Your task to perform on an android device: allow cookies in the chrome app Image 0: 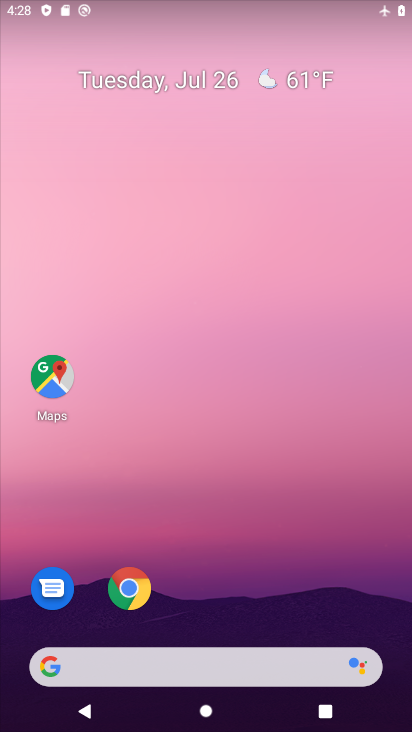
Step 0: drag from (251, 582) to (360, 53)
Your task to perform on an android device: allow cookies in the chrome app Image 1: 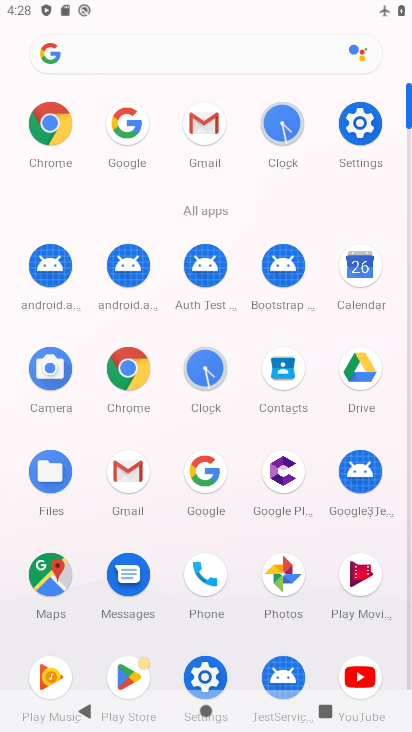
Step 1: click (57, 126)
Your task to perform on an android device: allow cookies in the chrome app Image 2: 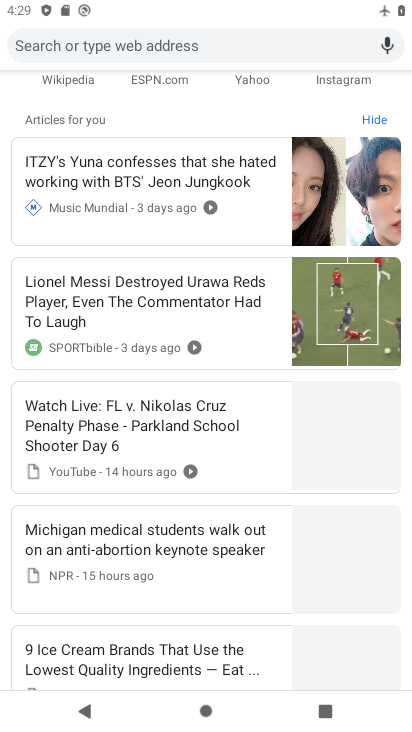
Step 2: drag from (185, 238) to (268, 614)
Your task to perform on an android device: allow cookies in the chrome app Image 3: 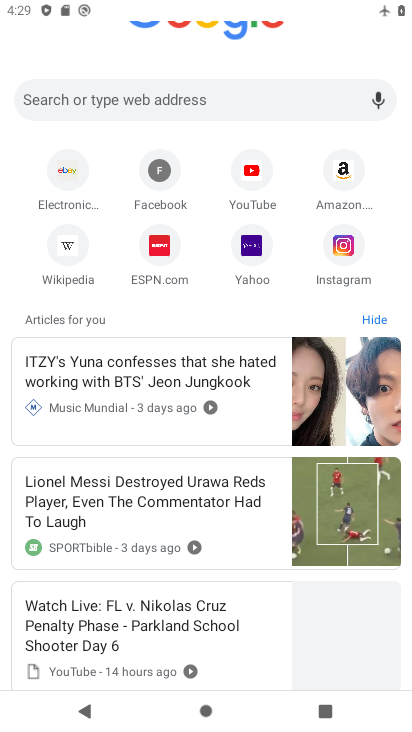
Step 3: drag from (130, 446) to (193, 671)
Your task to perform on an android device: allow cookies in the chrome app Image 4: 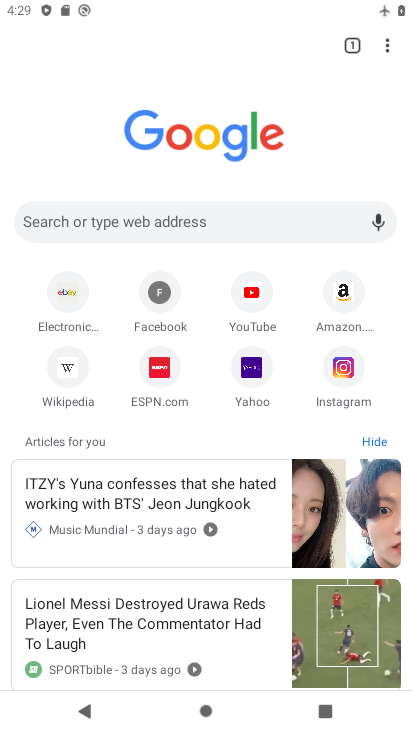
Step 4: drag from (392, 41) to (251, 378)
Your task to perform on an android device: allow cookies in the chrome app Image 5: 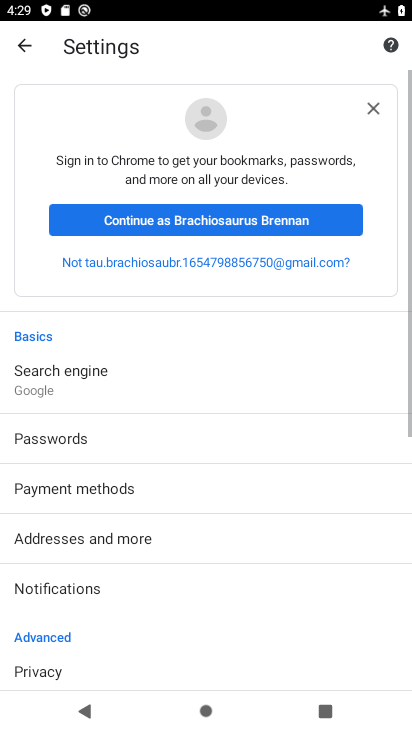
Step 5: drag from (93, 565) to (172, 245)
Your task to perform on an android device: allow cookies in the chrome app Image 6: 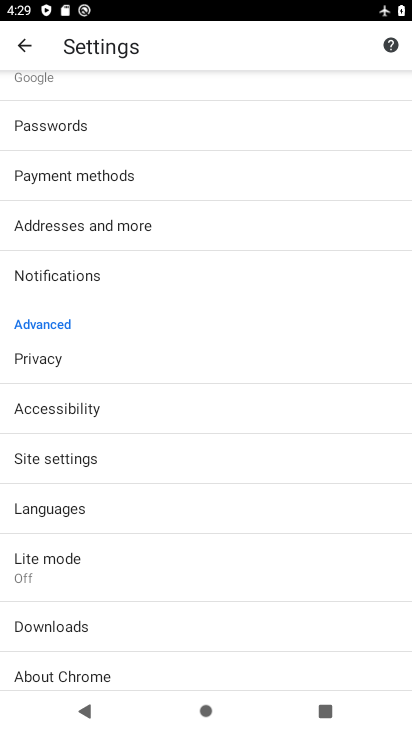
Step 6: click (48, 464)
Your task to perform on an android device: allow cookies in the chrome app Image 7: 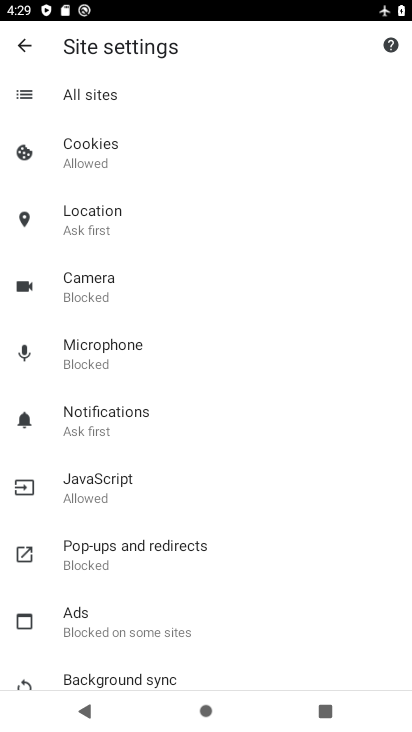
Step 7: click (83, 157)
Your task to perform on an android device: allow cookies in the chrome app Image 8: 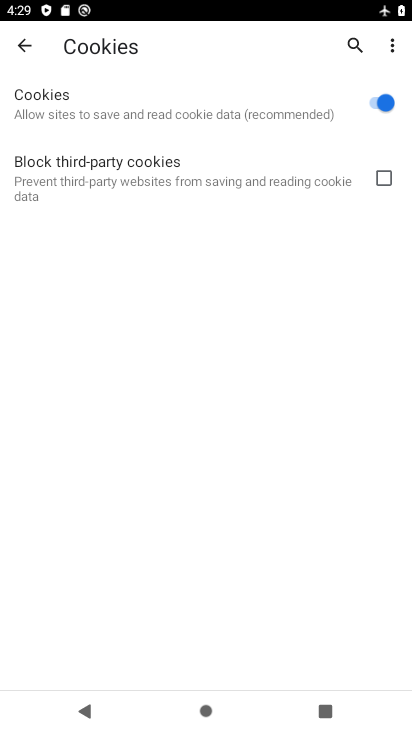
Step 8: task complete